Your task to perform on an android device: Open calendar and show me the first week of next month Image 0: 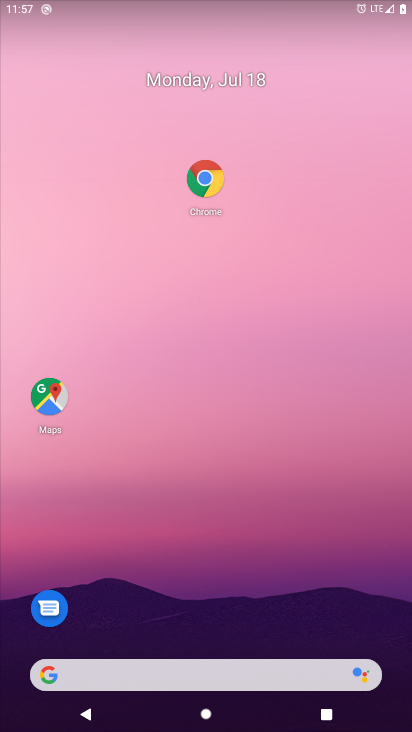
Step 0: drag from (82, 563) to (266, 114)
Your task to perform on an android device: Open calendar and show me the first week of next month Image 1: 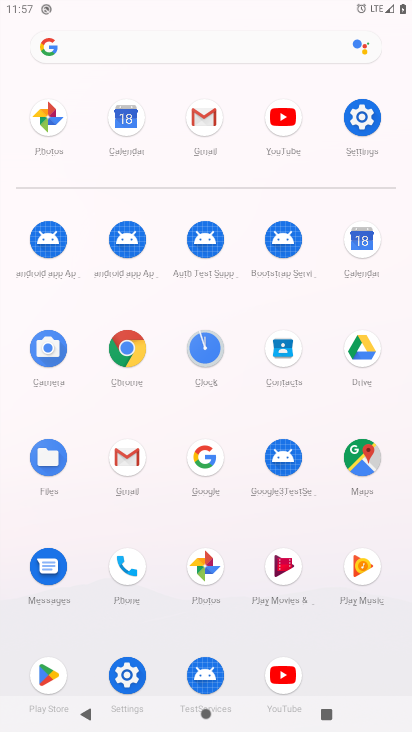
Step 1: click (356, 261)
Your task to perform on an android device: Open calendar and show me the first week of next month Image 2: 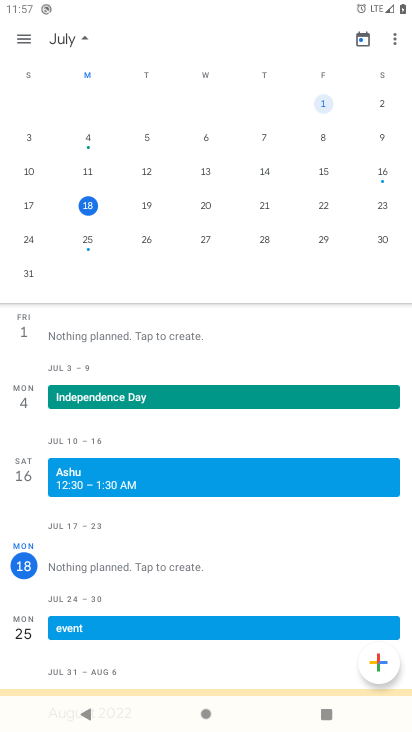
Step 2: task complete